Your task to perform on an android device: Go to Android settings Image 0: 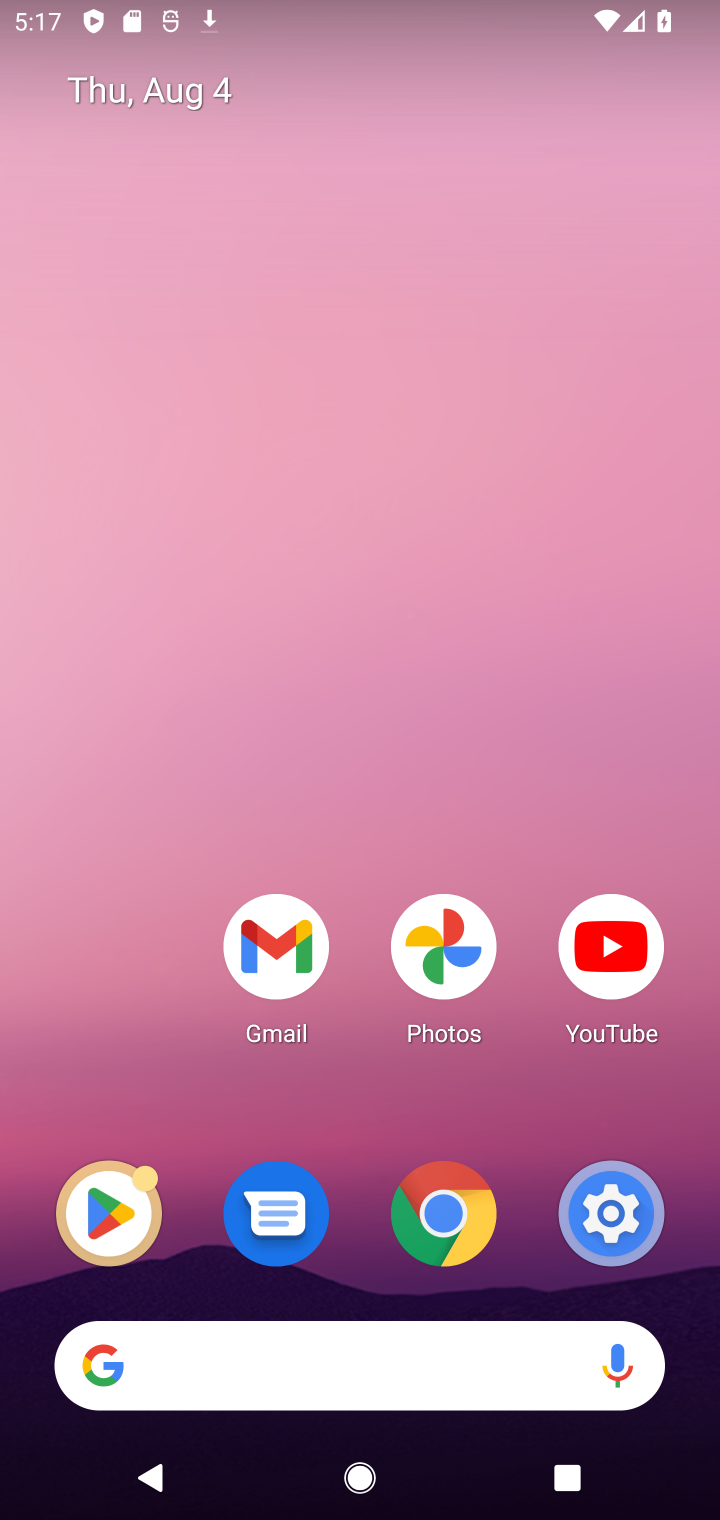
Step 0: click (651, 1189)
Your task to perform on an android device: Go to Android settings Image 1: 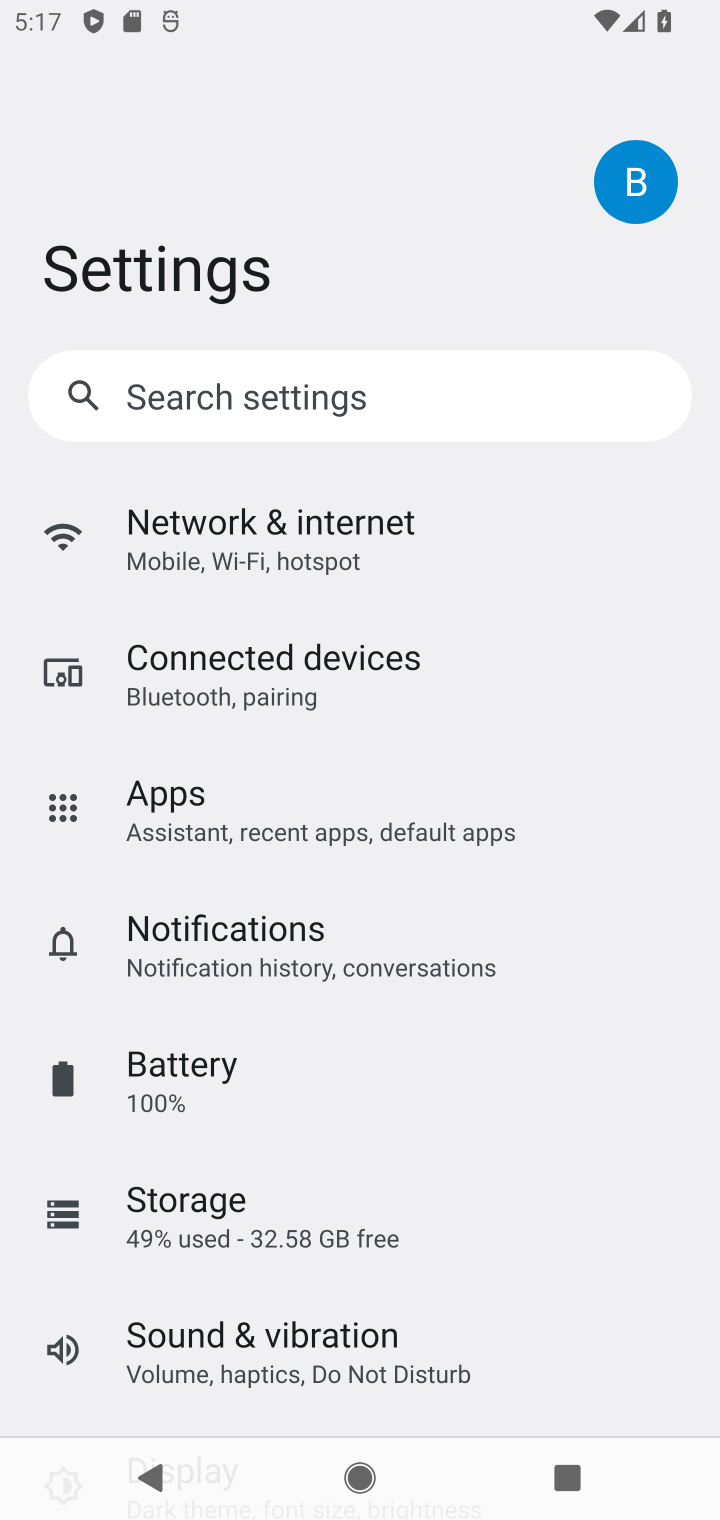
Step 1: task complete